Your task to perform on an android device: change the clock style Image 0: 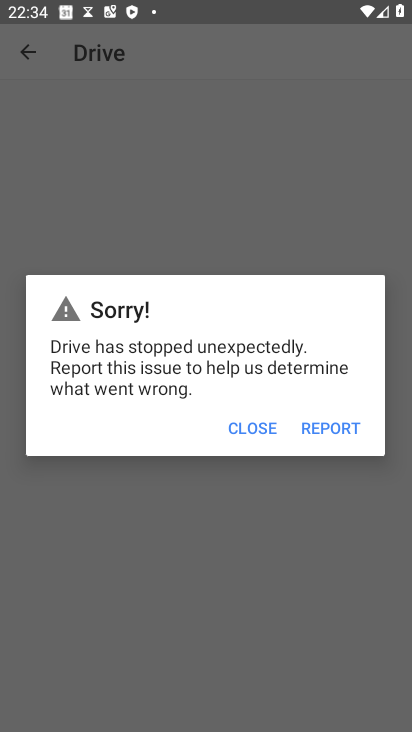
Step 0: press home button
Your task to perform on an android device: change the clock style Image 1: 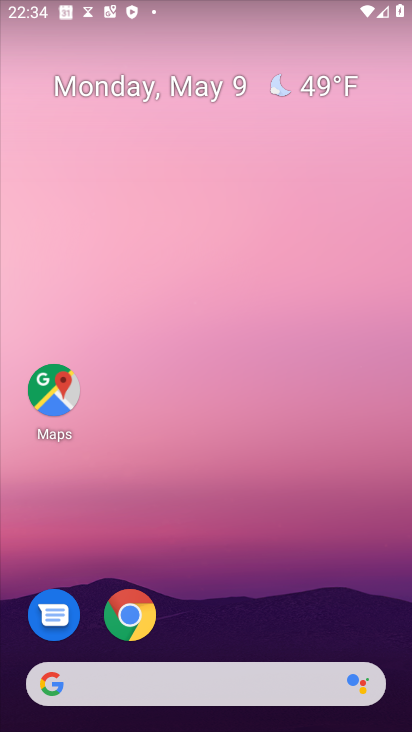
Step 1: drag from (273, 598) to (327, 148)
Your task to perform on an android device: change the clock style Image 2: 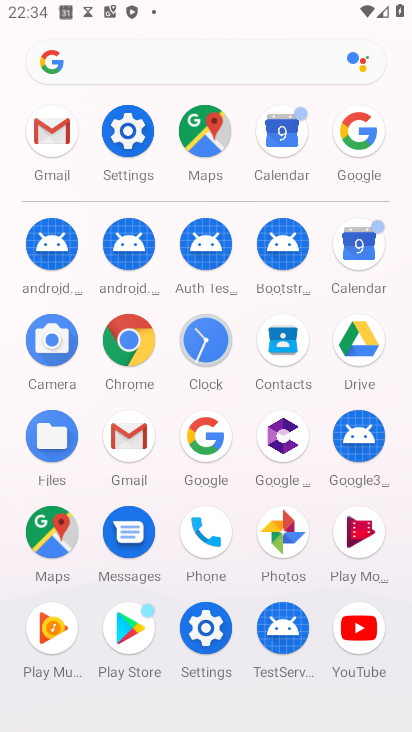
Step 2: click (200, 350)
Your task to perform on an android device: change the clock style Image 3: 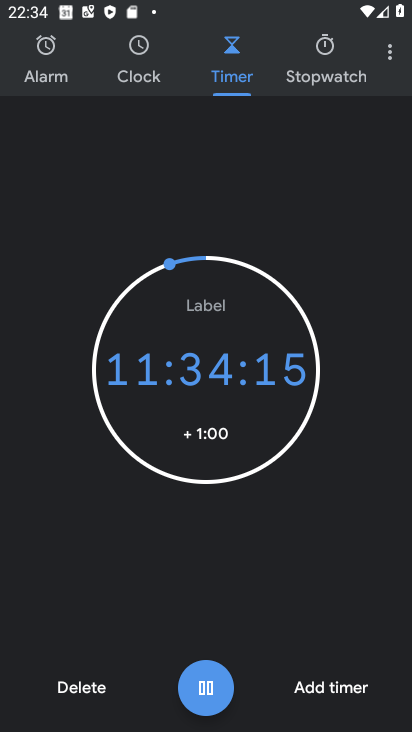
Step 3: click (387, 59)
Your task to perform on an android device: change the clock style Image 4: 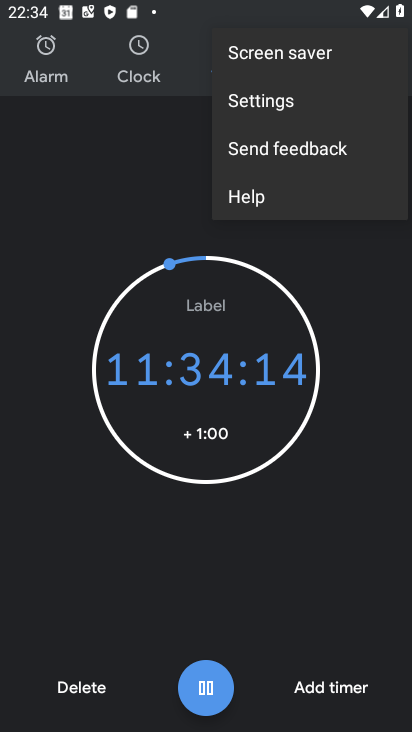
Step 4: click (311, 95)
Your task to perform on an android device: change the clock style Image 5: 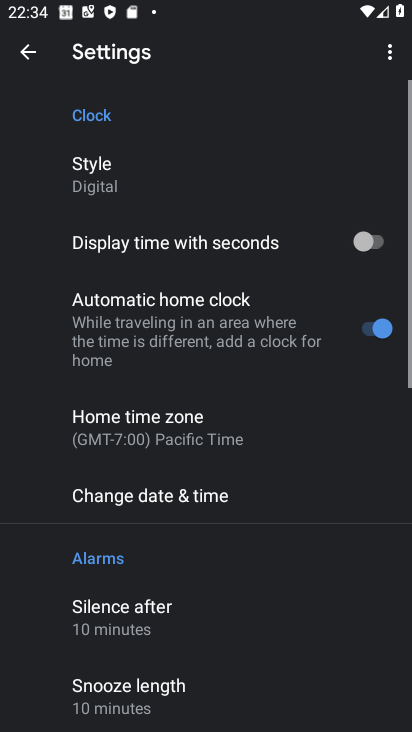
Step 5: click (149, 171)
Your task to perform on an android device: change the clock style Image 6: 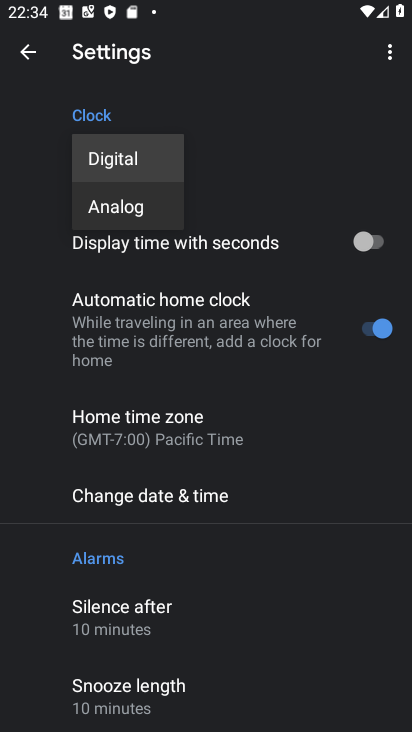
Step 6: click (148, 202)
Your task to perform on an android device: change the clock style Image 7: 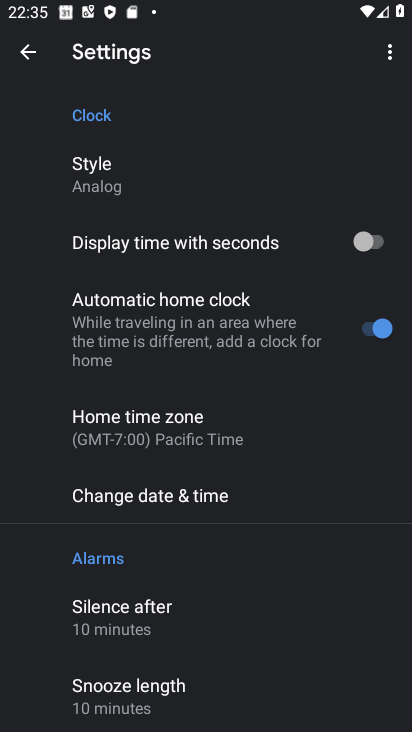
Step 7: task complete